Your task to perform on an android device: empty trash in the gmail app Image 0: 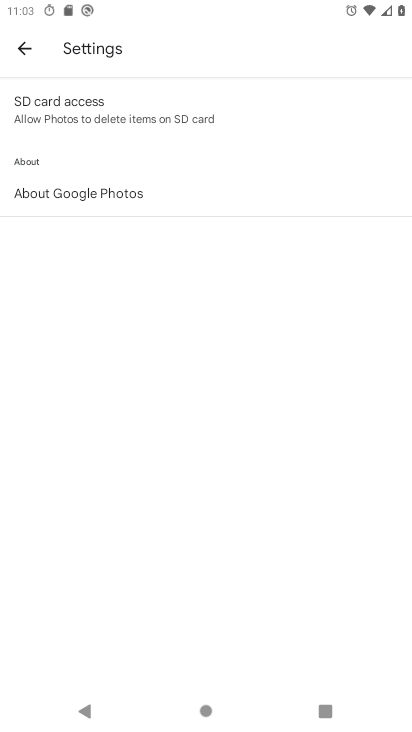
Step 0: press back button
Your task to perform on an android device: empty trash in the gmail app Image 1: 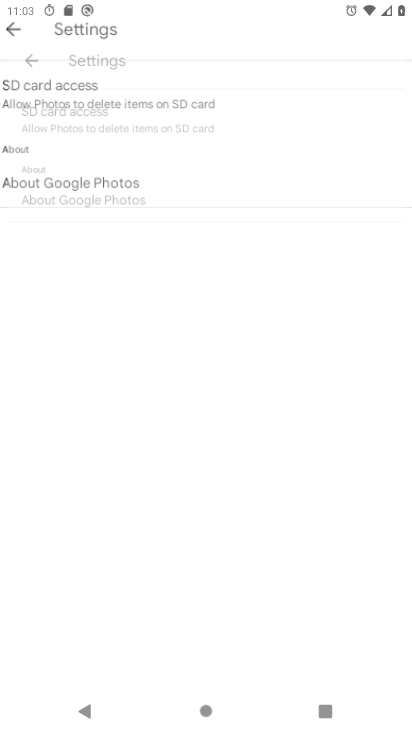
Step 1: press back button
Your task to perform on an android device: empty trash in the gmail app Image 2: 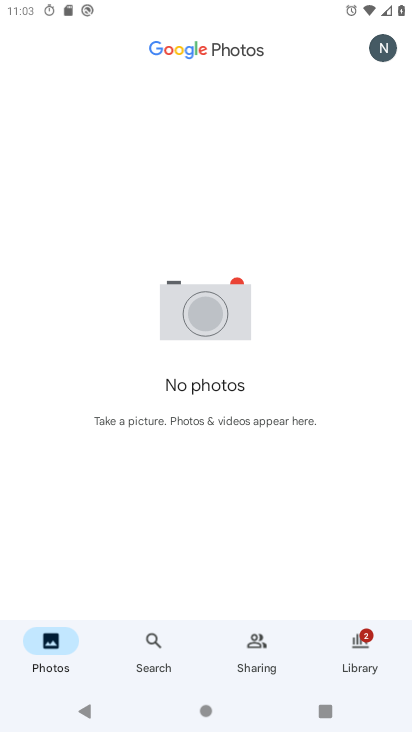
Step 2: press home button
Your task to perform on an android device: empty trash in the gmail app Image 3: 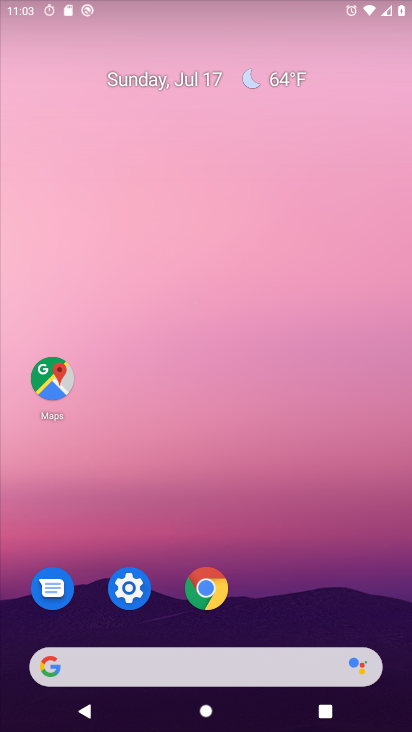
Step 3: drag from (257, 394) to (248, 204)
Your task to perform on an android device: empty trash in the gmail app Image 4: 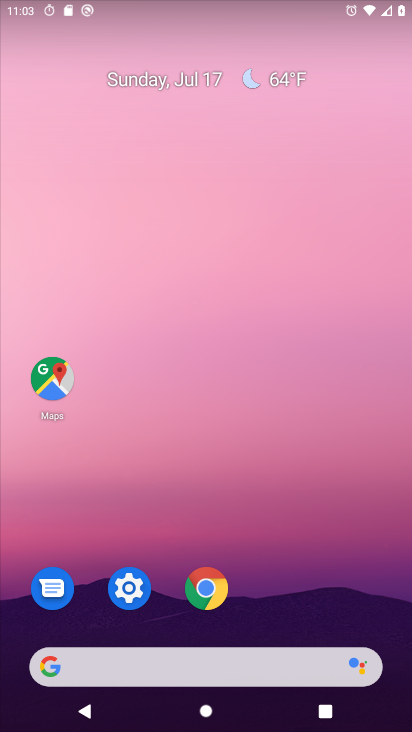
Step 4: drag from (246, 712) to (186, 173)
Your task to perform on an android device: empty trash in the gmail app Image 5: 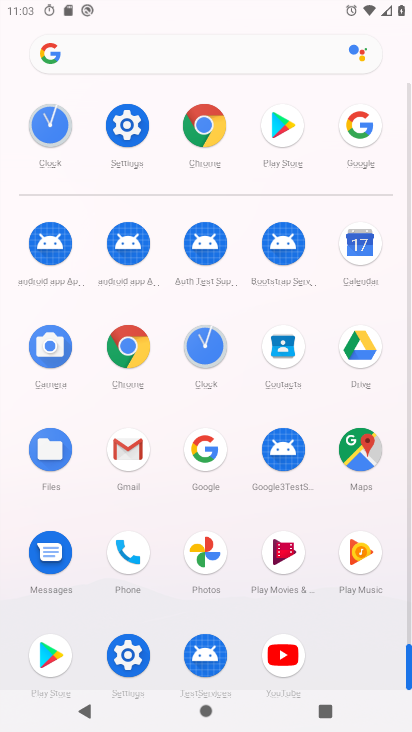
Step 5: click (129, 116)
Your task to perform on an android device: empty trash in the gmail app Image 6: 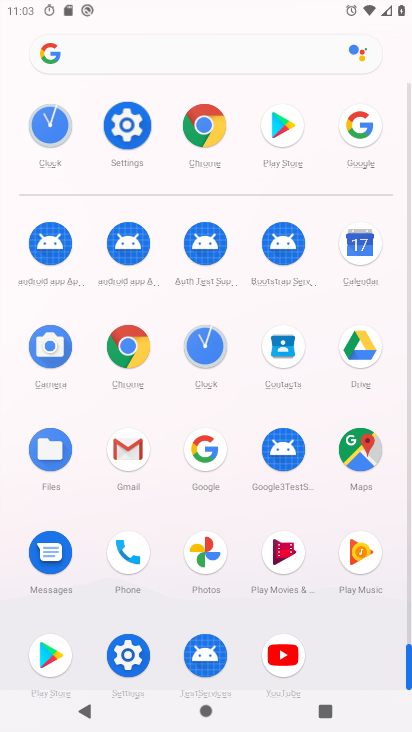
Step 6: click (132, 120)
Your task to perform on an android device: empty trash in the gmail app Image 7: 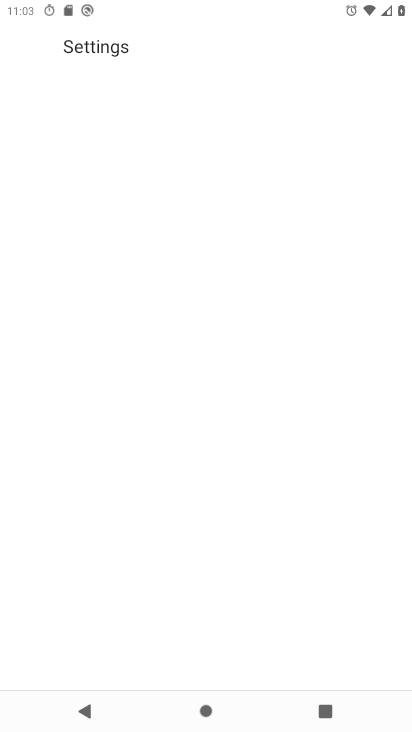
Step 7: click (133, 121)
Your task to perform on an android device: empty trash in the gmail app Image 8: 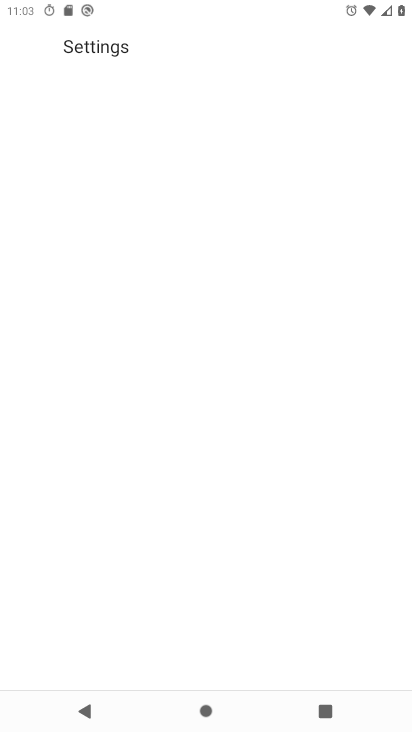
Step 8: click (133, 121)
Your task to perform on an android device: empty trash in the gmail app Image 9: 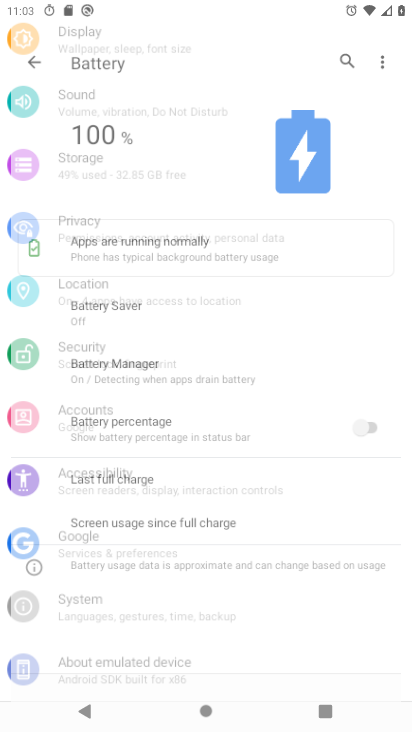
Step 9: press back button
Your task to perform on an android device: empty trash in the gmail app Image 10: 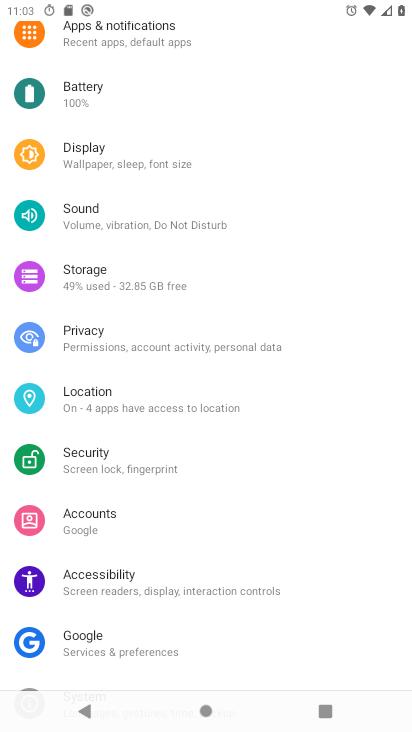
Step 10: press home button
Your task to perform on an android device: empty trash in the gmail app Image 11: 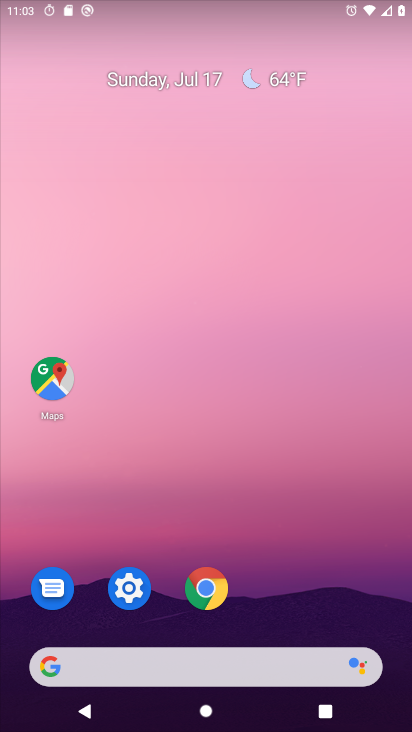
Step 11: drag from (273, 549) to (267, 194)
Your task to perform on an android device: empty trash in the gmail app Image 12: 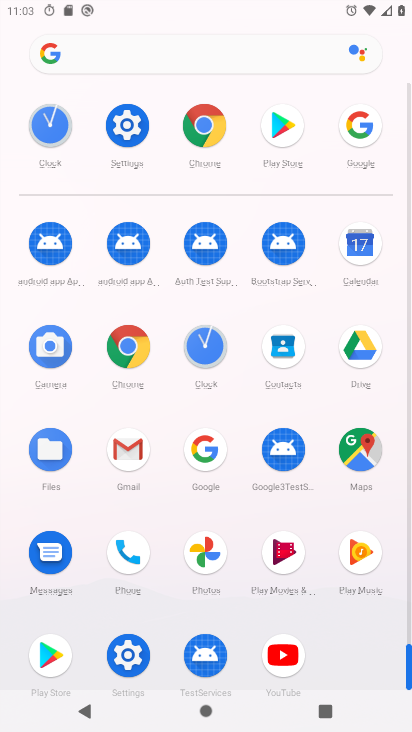
Step 12: click (125, 443)
Your task to perform on an android device: empty trash in the gmail app Image 13: 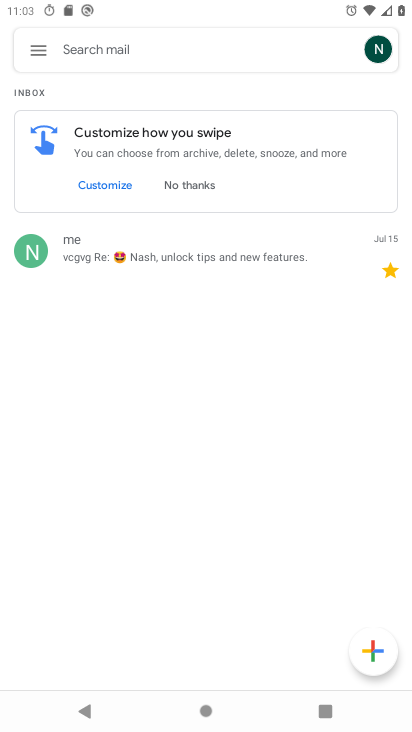
Step 13: click (31, 43)
Your task to perform on an android device: empty trash in the gmail app Image 14: 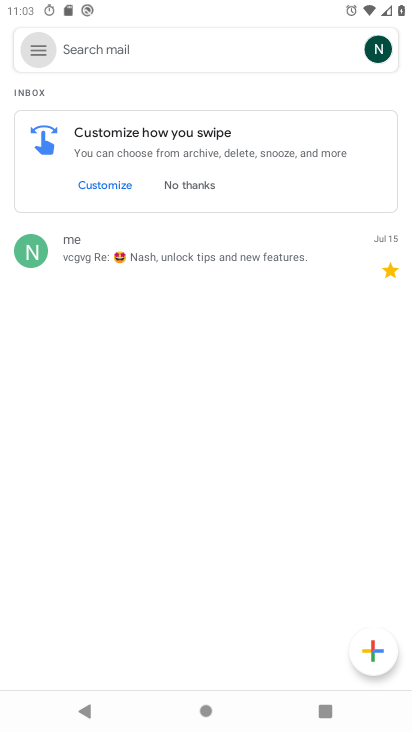
Step 14: click (32, 45)
Your task to perform on an android device: empty trash in the gmail app Image 15: 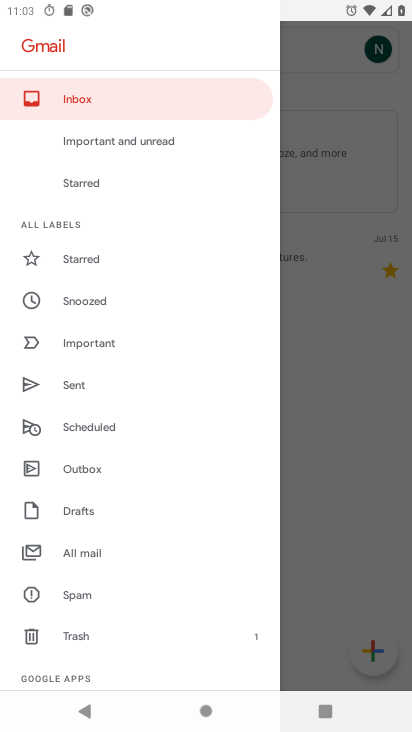
Step 15: click (67, 638)
Your task to perform on an android device: empty trash in the gmail app Image 16: 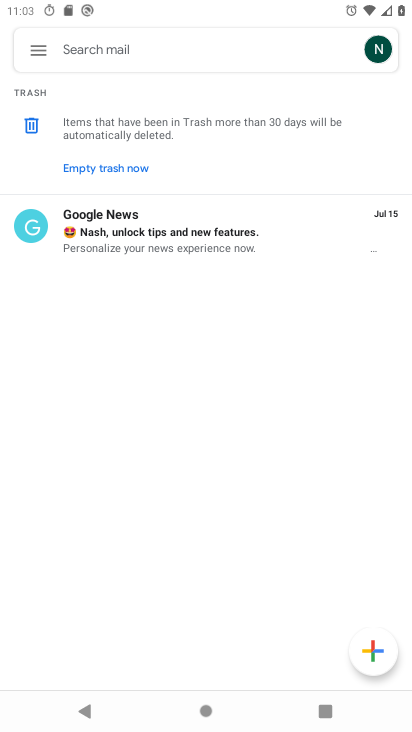
Step 16: click (38, 53)
Your task to perform on an android device: empty trash in the gmail app Image 17: 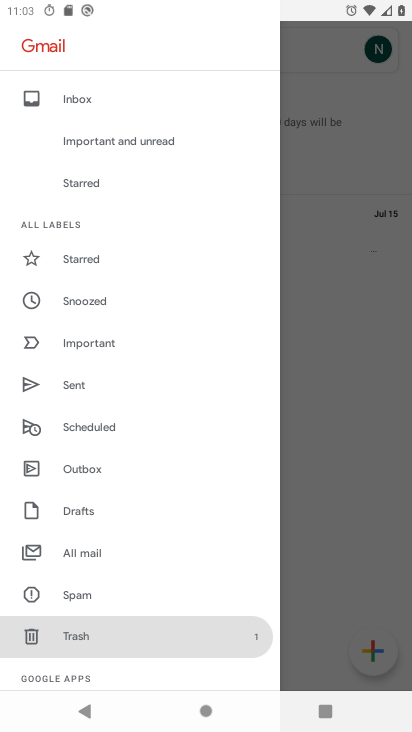
Step 17: drag from (352, 256) to (331, 189)
Your task to perform on an android device: empty trash in the gmail app Image 18: 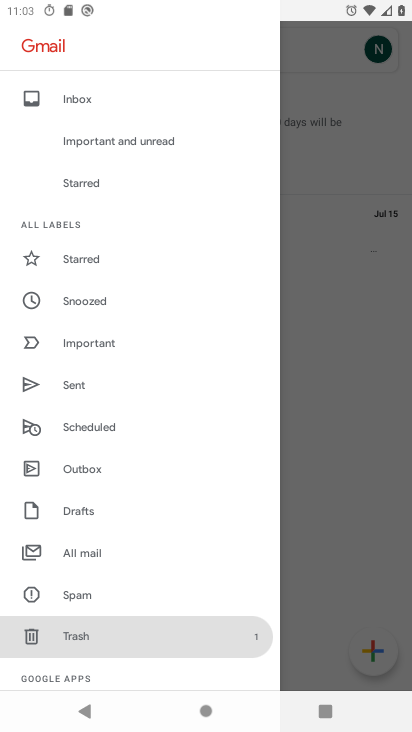
Step 18: click (322, 420)
Your task to perform on an android device: empty trash in the gmail app Image 19: 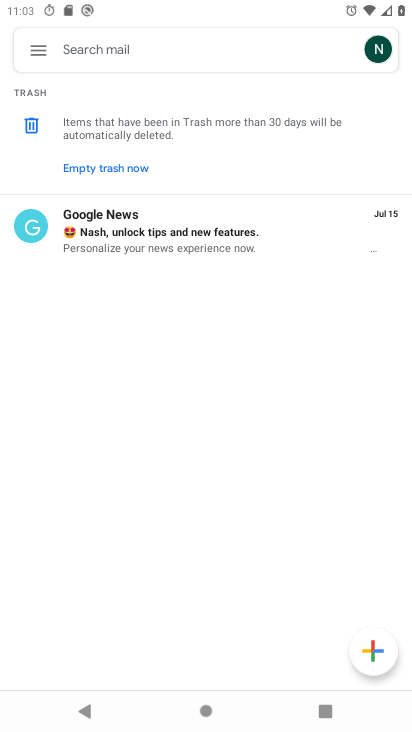
Step 19: click (322, 420)
Your task to perform on an android device: empty trash in the gmail app Image 20: 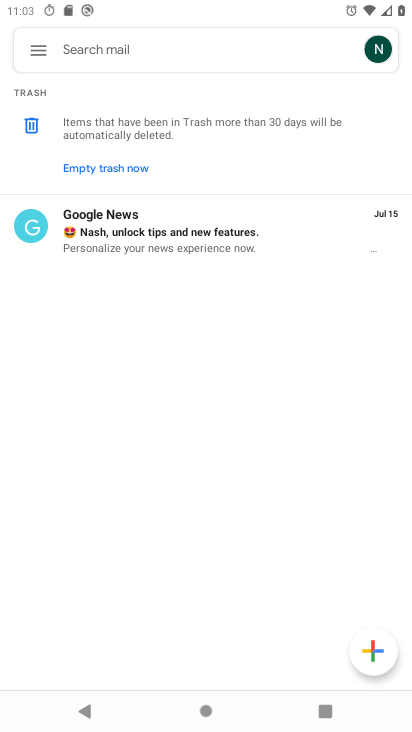
Step 20: click (120, 164)
Your task to perform on an android device: empty trash in the gmail app Image 21: 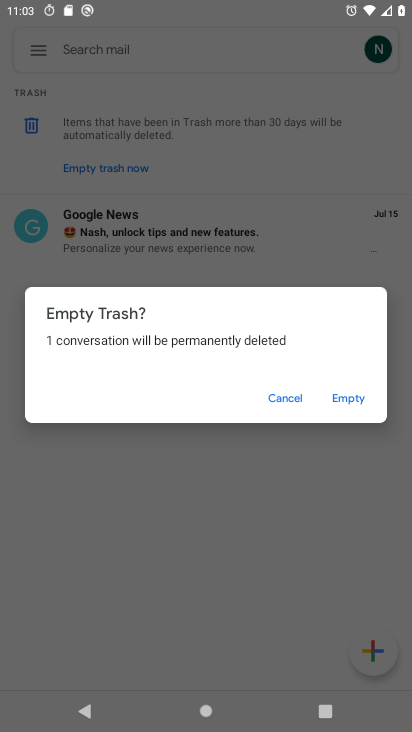
Step 21: click (347, 399)
Your task to perform on an android device: empty trash in the gmail app Image 22: 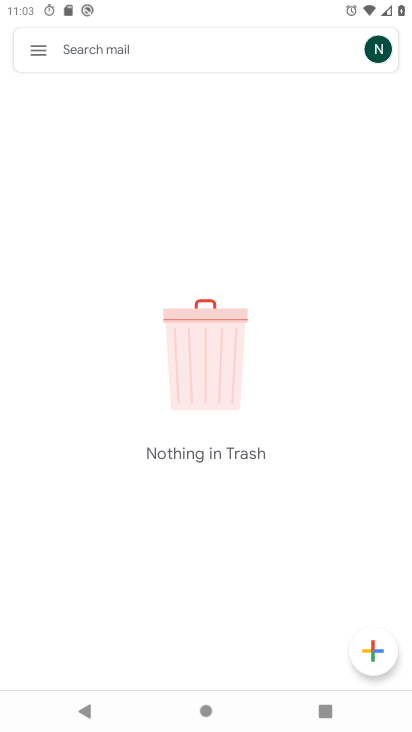
Step 22: task complete